Your task to perform on an android device: What's the weather going to be tomorrow? Image 0: 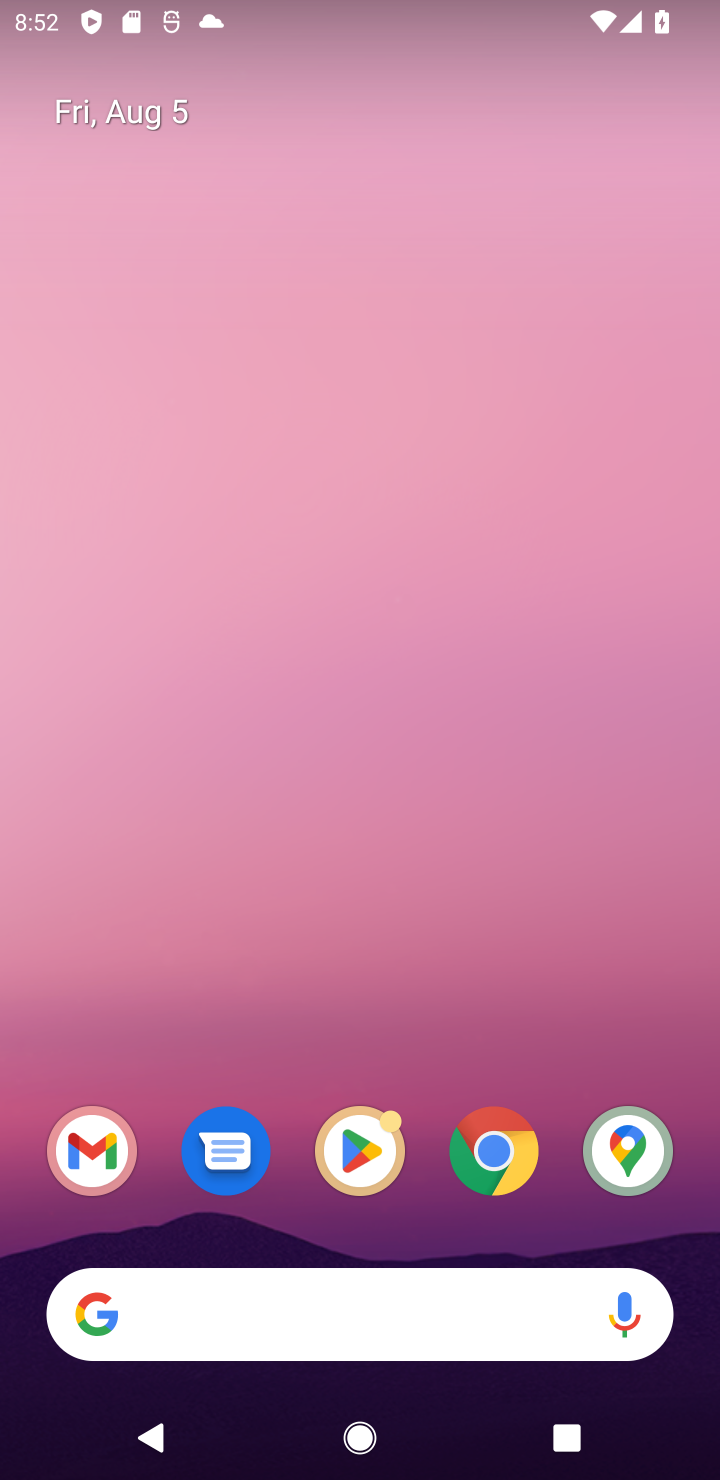
Step 0: click (245, 1310)
Your task to perform on an android device: What's the weather going to be tomorrow? Image 1: 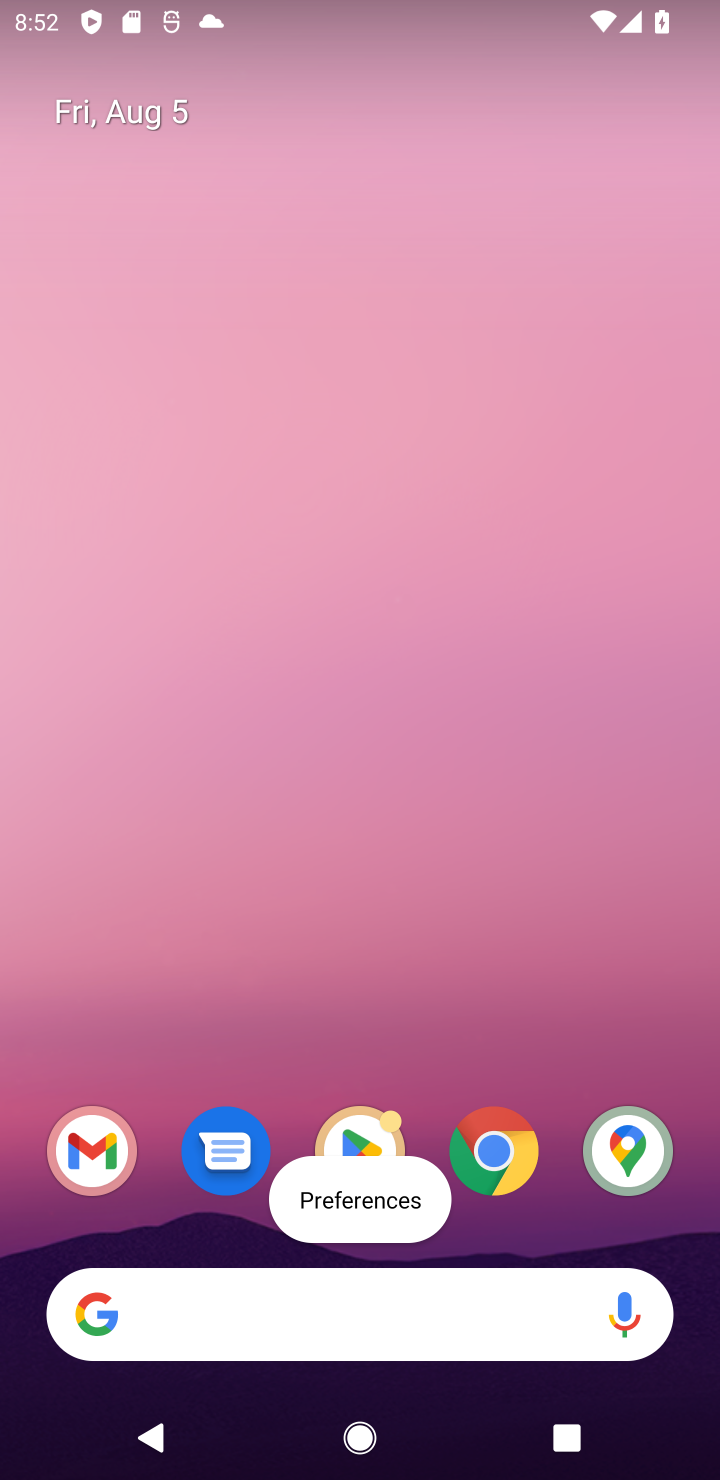
Step 1: click (162, 1339)
Your task to perform on an android device: What's the weather going to be tomorrow? Image 2: 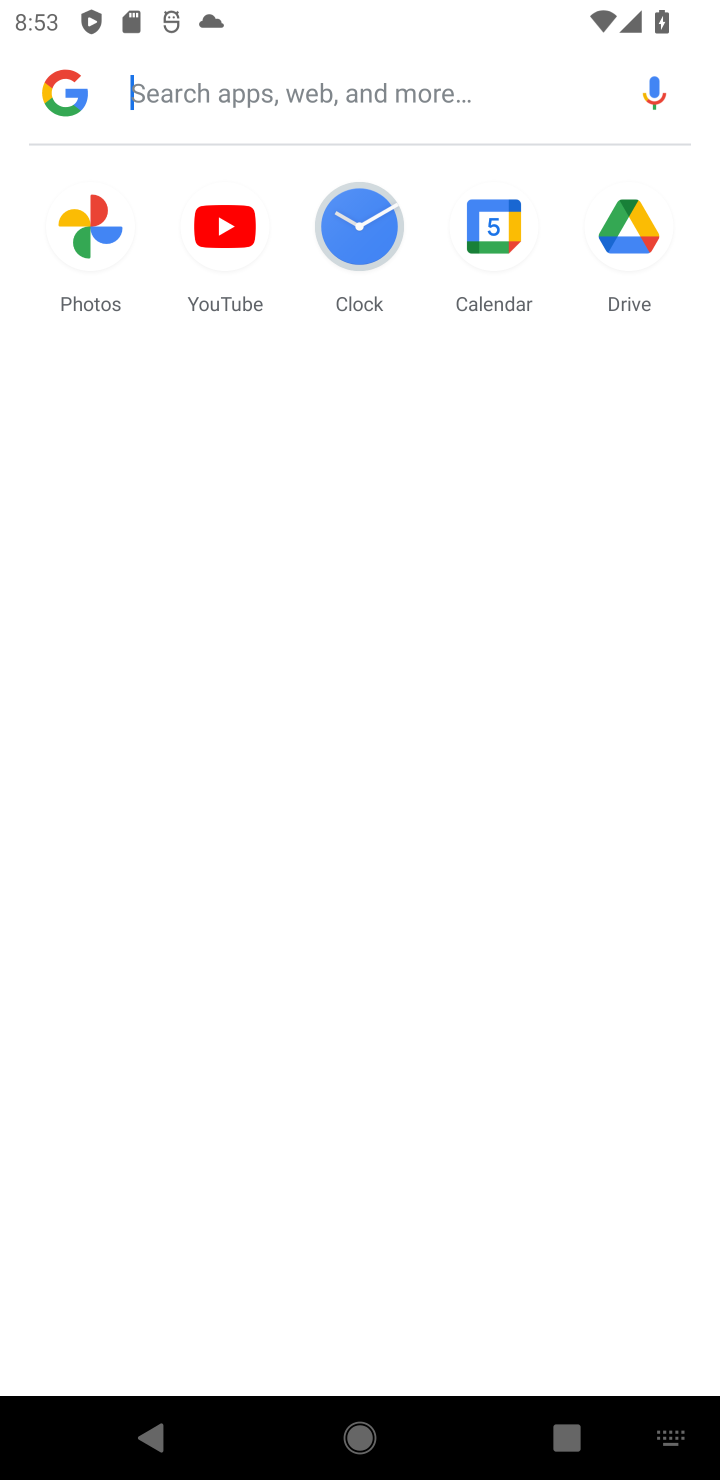
Step 2: type "wheather"
Your task to perform on an android device: What's the weather going to be tomorrow? Image 3: 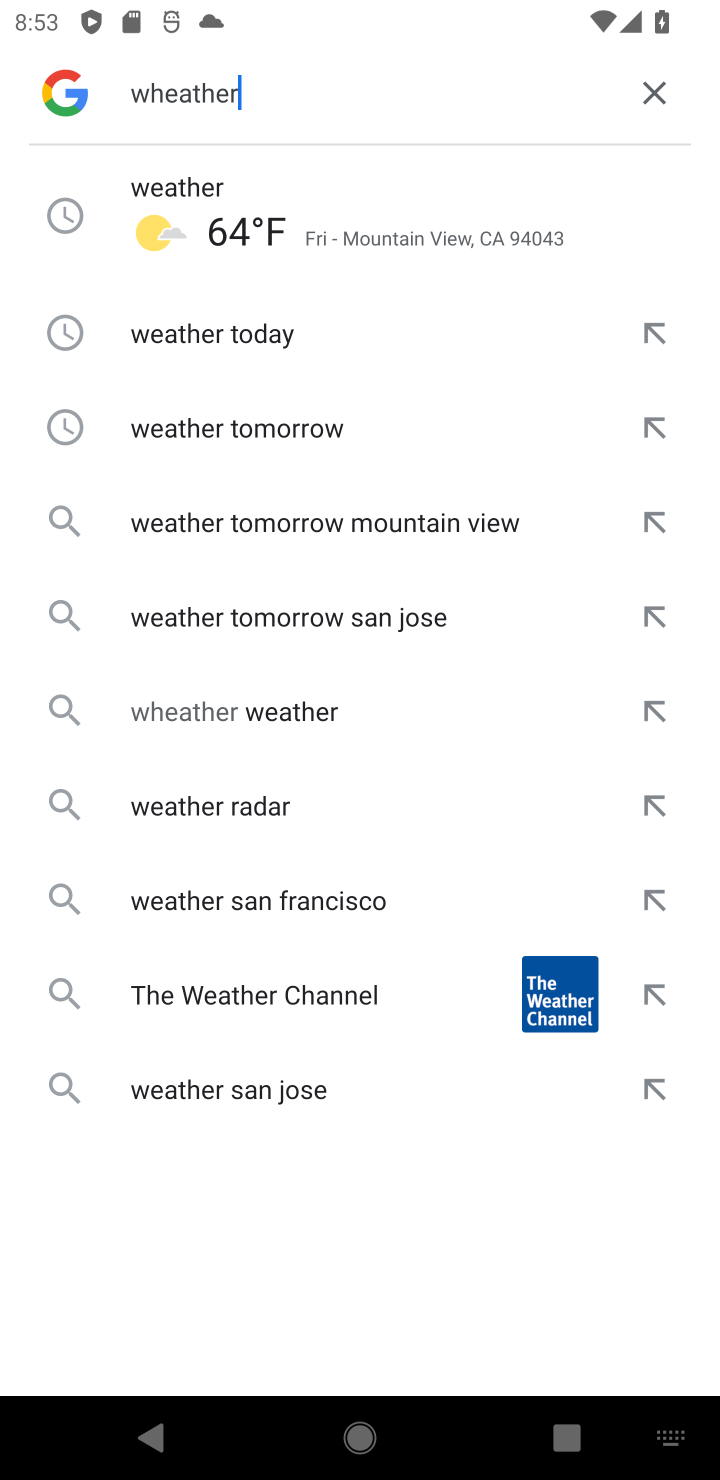
Step 3: click (209, 192)
Your task to perform on an android device: What's the weather going to be tomorrow? Image 4: 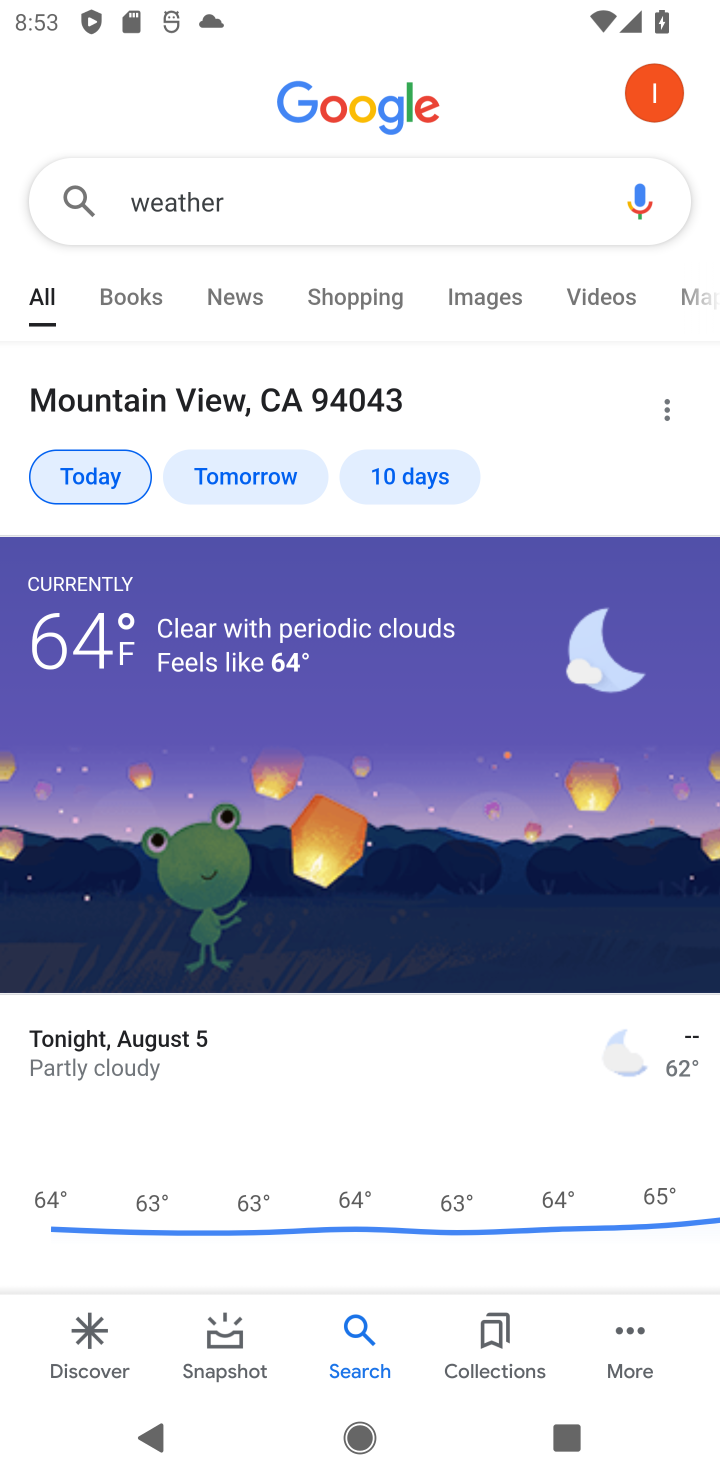
Step 4: click (257, 479)
Your task to perform on an android device: What's the weather going to be tomorrow? Image 5: 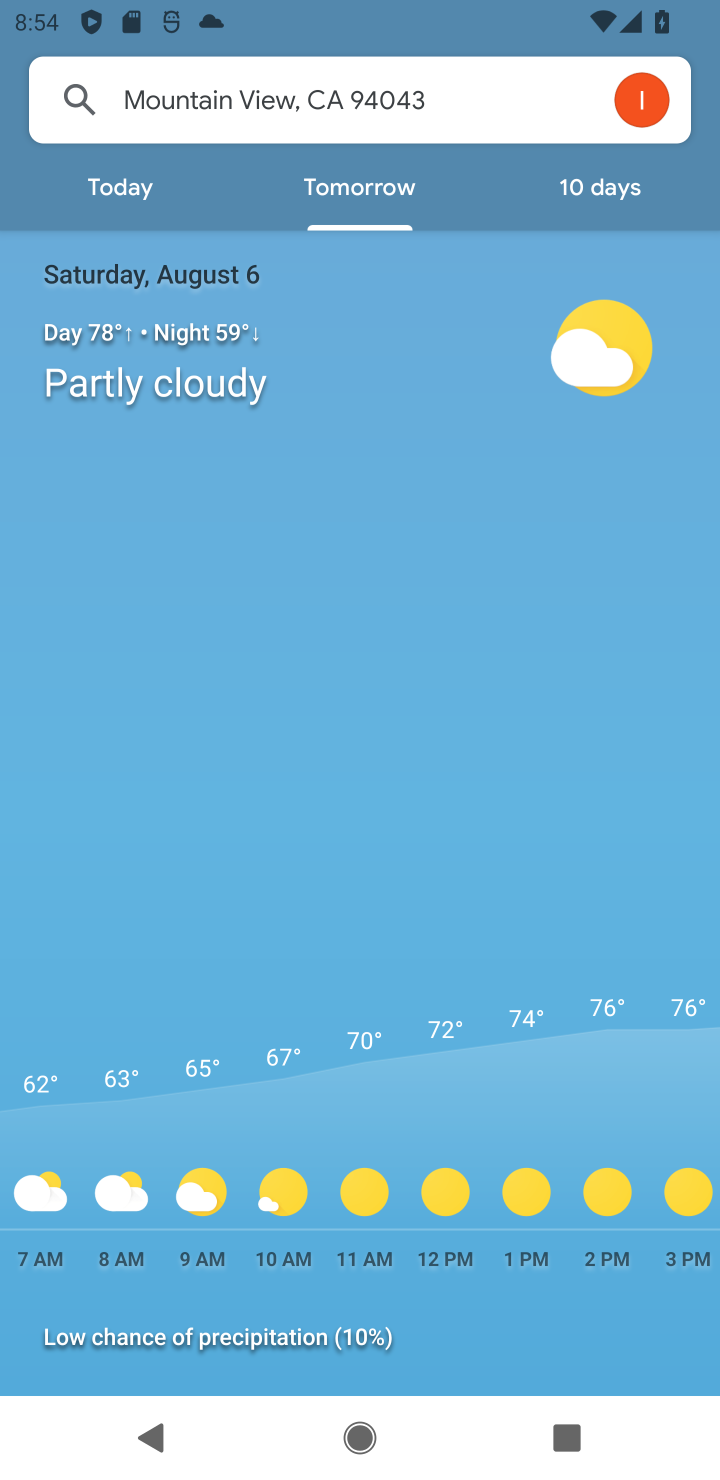
Step 5: task complete